Your task to perform on an android device: Open Yahoo.com Image 0: 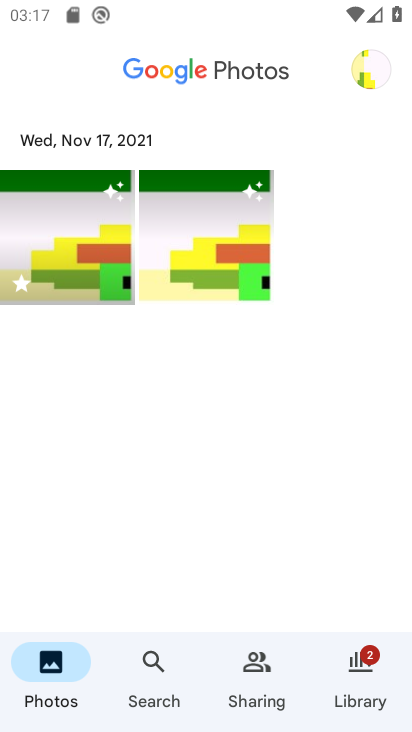
Step 0: press home button
Your task to perform on an android device: Open Yahoo.com Image 1: 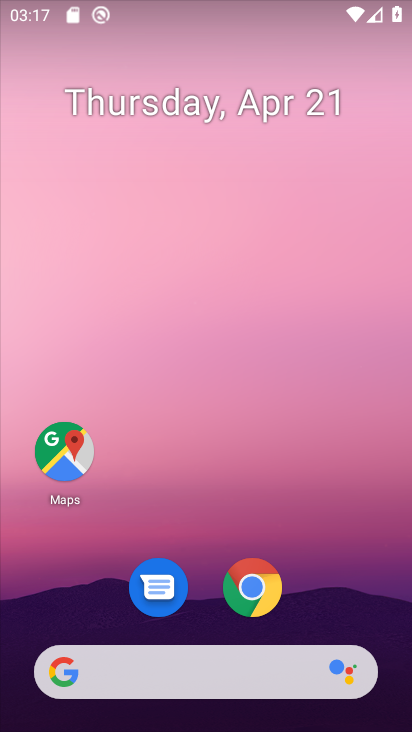
Step 1: drag from (340, 598) to (351, 158)
Your task to perform on an android device: Open Yahoo.com Image 2: 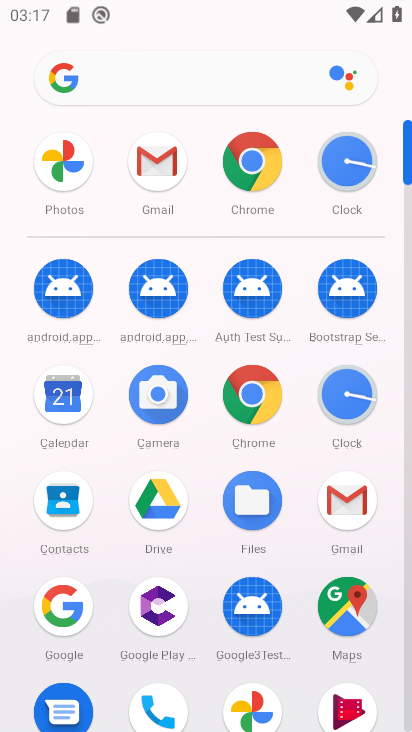
Step 2: click (246, 412)
Your task to perform on an android device: Open Yahoo.com Image 3: 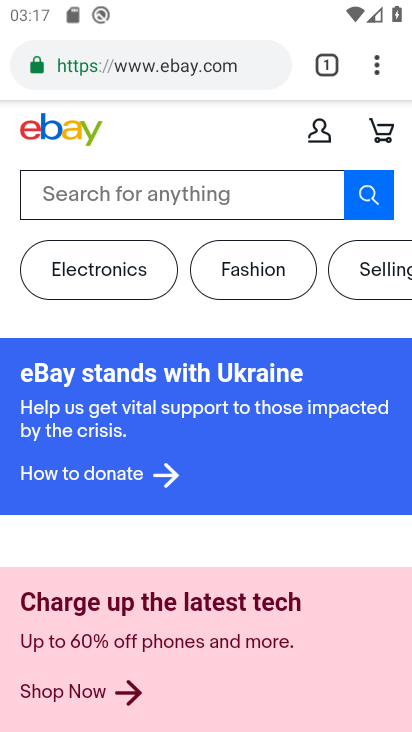
Step 3: click (218, 59)
Your task to perform on an android device: Open Yahoo.com Image 4: 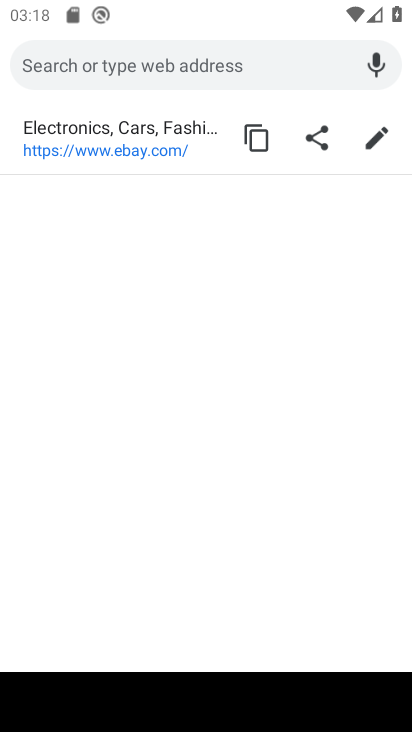
Step 4: type "yahoo.com"
Your task to perform on an android device: Open Yahoo.com Image 5: 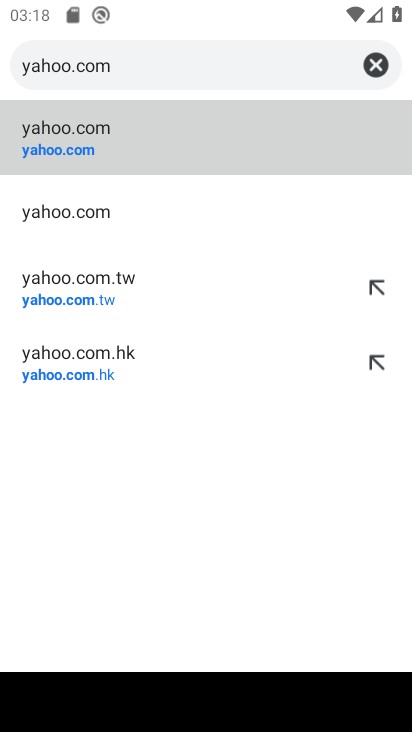
Step 5: click (130, 224)
Your task to perform on an android device: Open Yahoo.com Image 6: 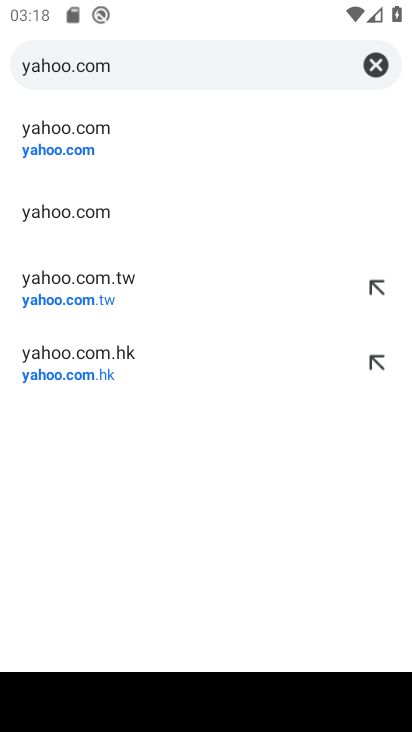
Step 6: click (130, 224)
Your task to perform on an android device: Open Yahoo.com Image 7: 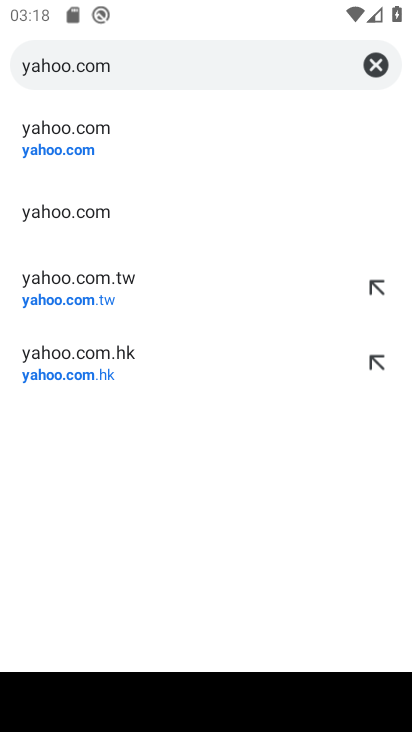
Step 7: click (78, 140)
Your task to perform on an android device: Open Yahoo.com Image 8: 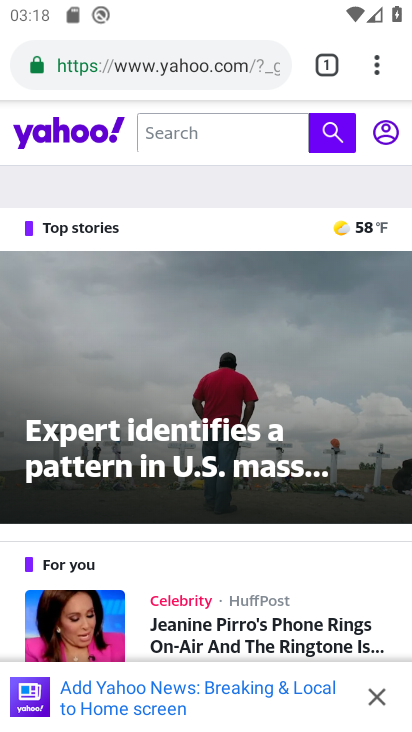
Step 8: task complete